Your task to perform on an android device: delete a single message in the gmail app Image 0: 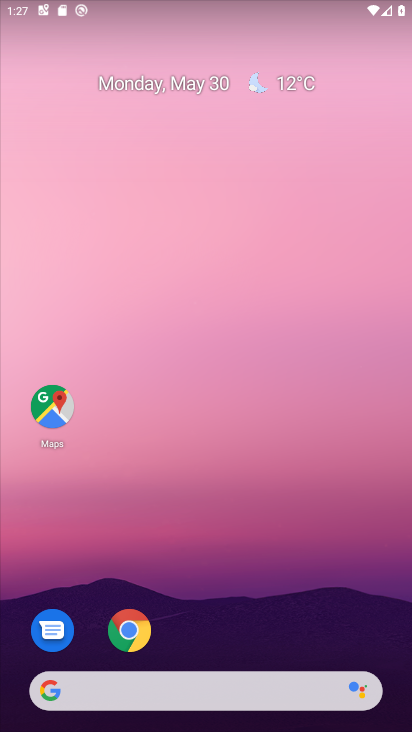
Step 0: drag from (245, 672) to (8, 3)
Your task to perform on an android device: delete a single message in the gmail app Image 1: 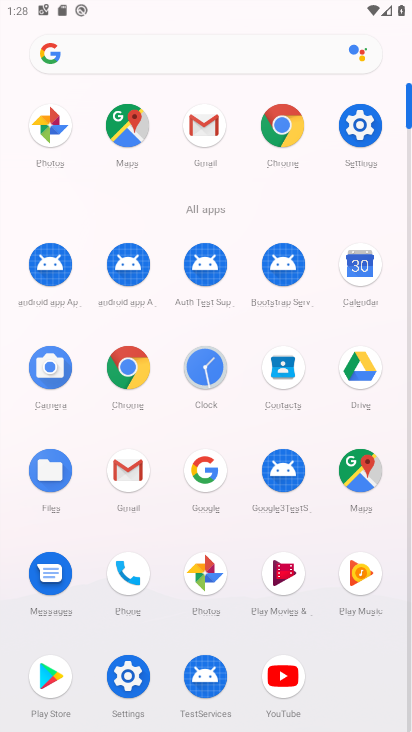
Step 1: click (123, 485)
Your task to perform on an android device: delete a single message in the gmail app Image 2: 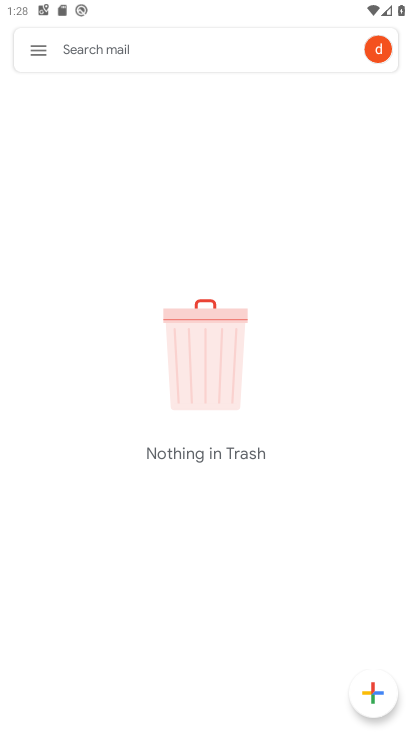
Step 2: click (38, 60)
Your task to perform on an android device: delete a single message in the gmail app Image 3: 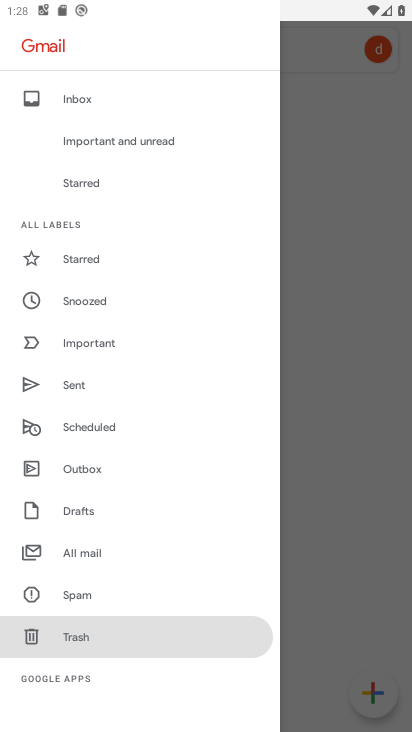
Step 3: click (104, 544)
Your task to perform on an android device: delete a single message in the gmail app Image 4: 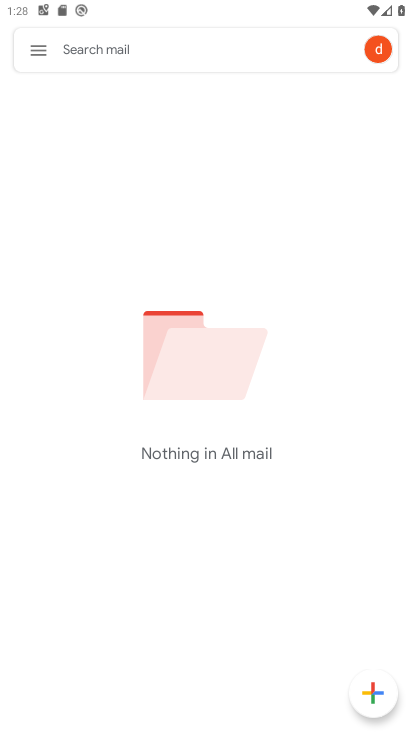
Step 4: task complete